Your task to perform on an android device: Open privacy settings Image 0: 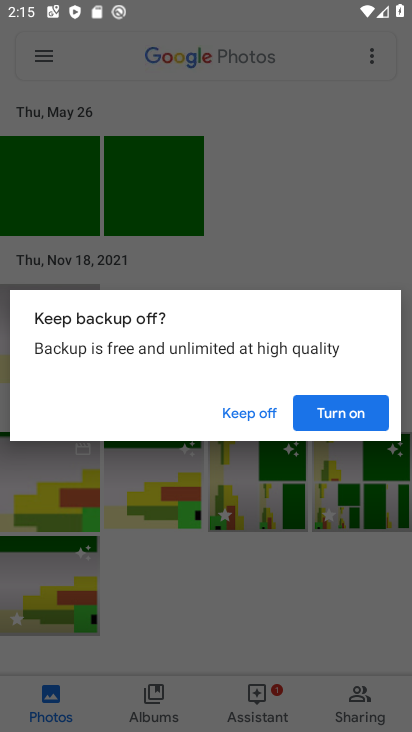
Step 0: press back button
Your task to perform on an android device: Open privacy settings Image 1: 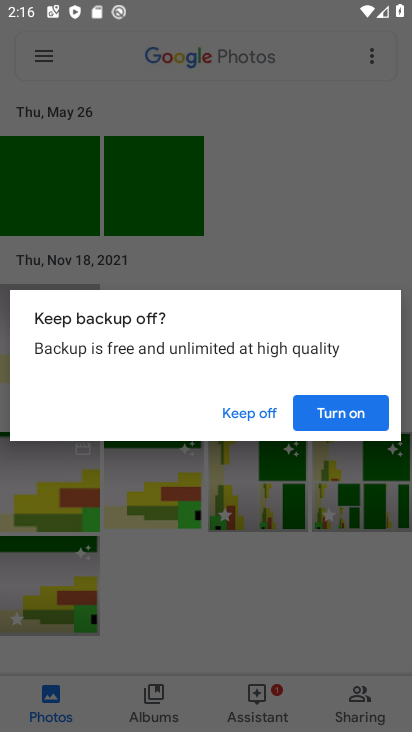
Step 1: press home button
Your task to perform on an android device: Open privacy settings Image 2: 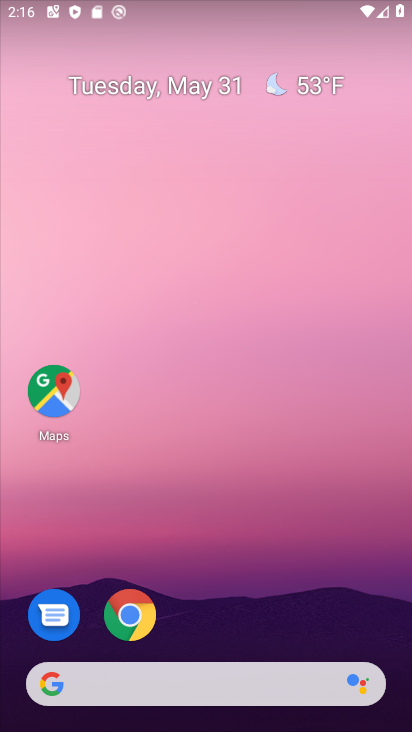
Step 2: drag from (243, 538) to (254, 110)
Your task to perform on an android device: Open privacy settings Image 3: 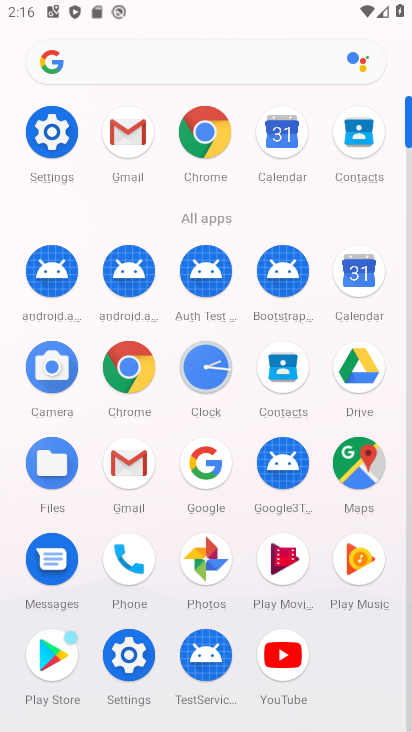
Step 3: click (44, 139)
Your task to perform on an android device: Open privacy settings Image 4: 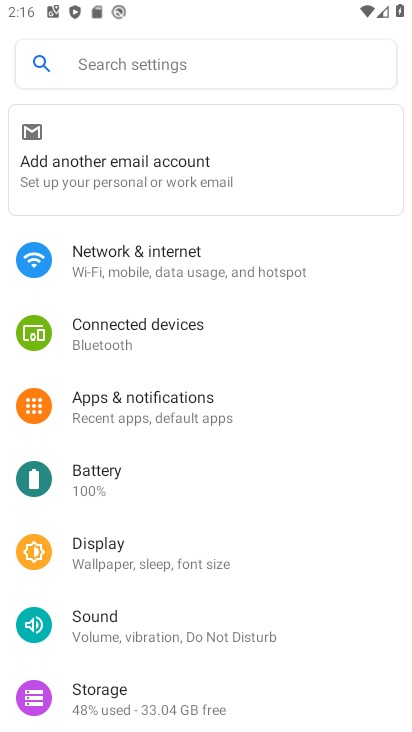
Step 4: drag from (121, 612) to (235, 149)
Your task to perform on an android device: Open privacy settings Image 5: 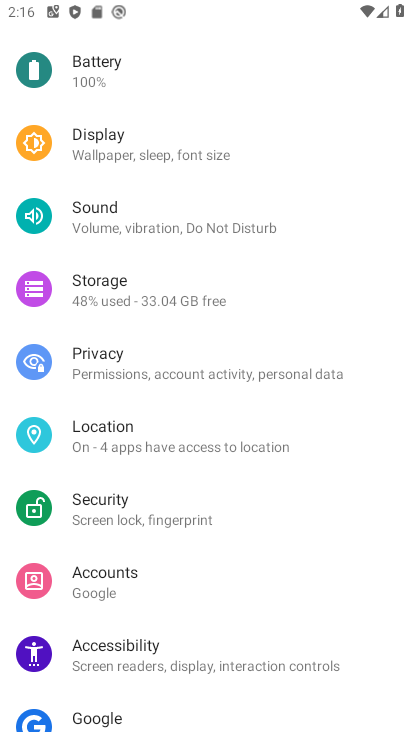
Step 5: click (98, 374)
Your task to perform on an android device: Open privacy settings Image 6: 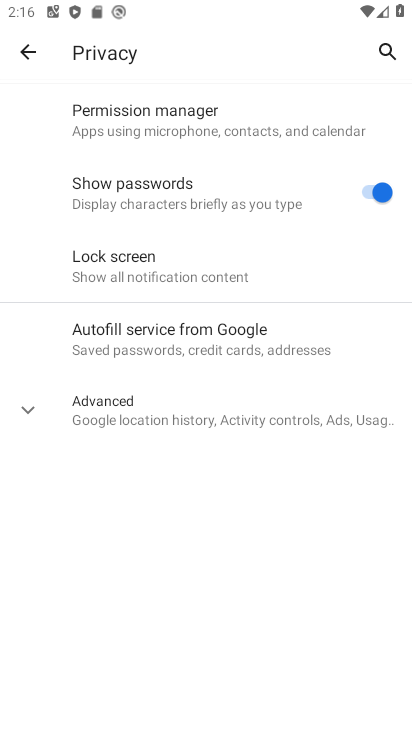
Step 6: task complete